Your task to perform on an android device: open chrome privacy settings Image 0: 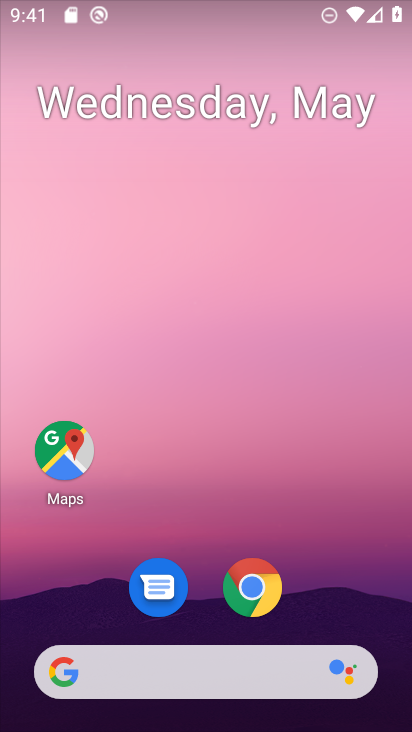
Step 0: click (250, 590)
Your task to perform on an android device: open chrome privacy settings Image 1: 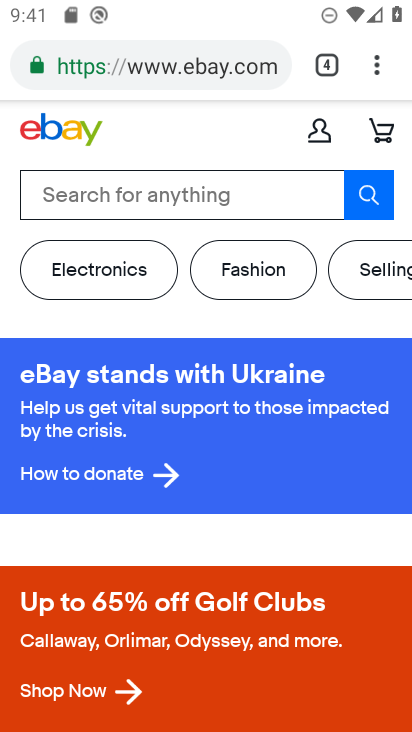
Step 1: click (374, 70)
Your task to perform on an android device: open chrome privacy settings Image 2: 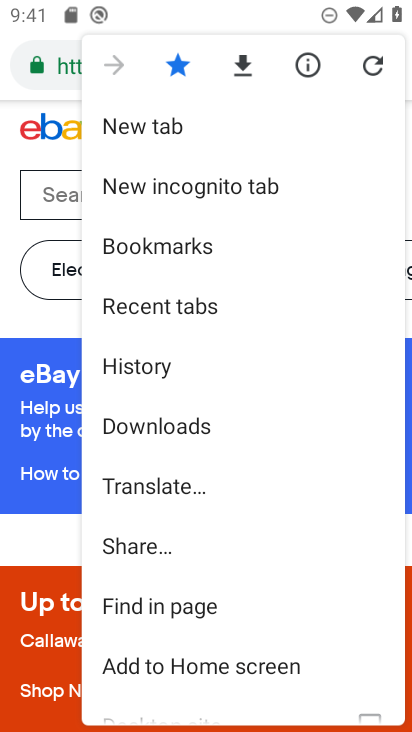
Step 2: drag from (213, 635) to (175, 274)
Your task to perform on an android device: open chrome privacy settings Image 3: 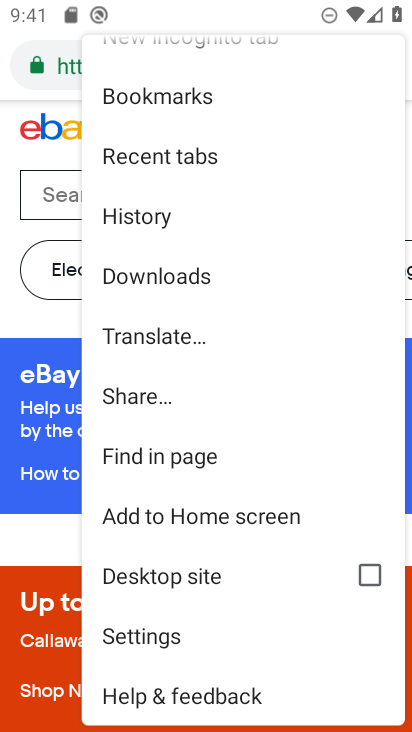
Step 3: click (146, 627)
Your task to perform on an android device: open chrome privacy settings Image 4: 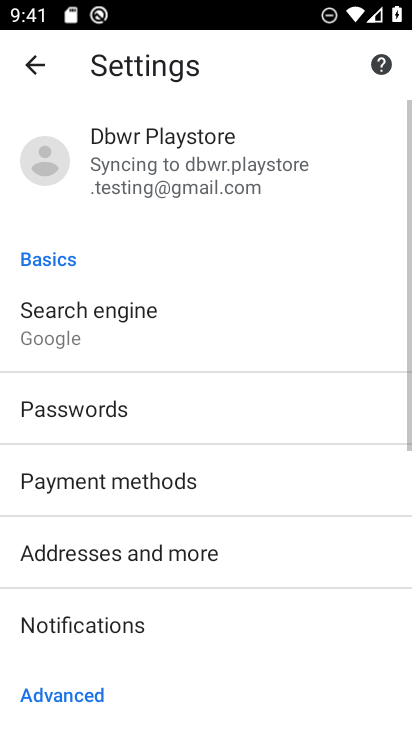
Step 4: drag from (147, 643) to (149, 331)
Your task to perform on an android device: open chrome privacy settings Image 5: 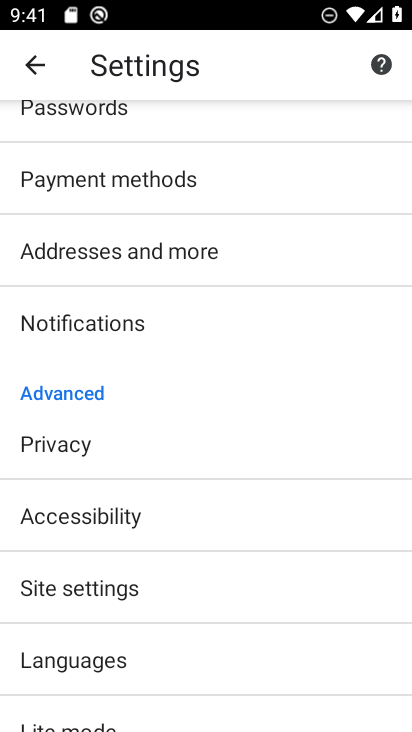
Step 5: click (66, 438)
Your task to perform on an android device: open chrome privacy settings Image 6: 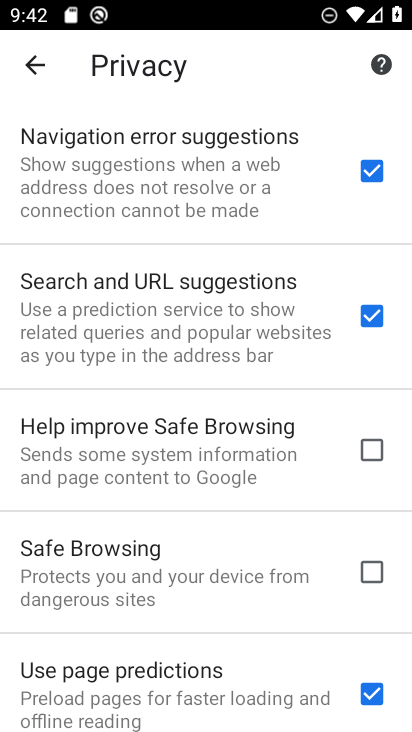
Step 6: task complete